Your task to perform on an android device: Open battery settings Image 0: 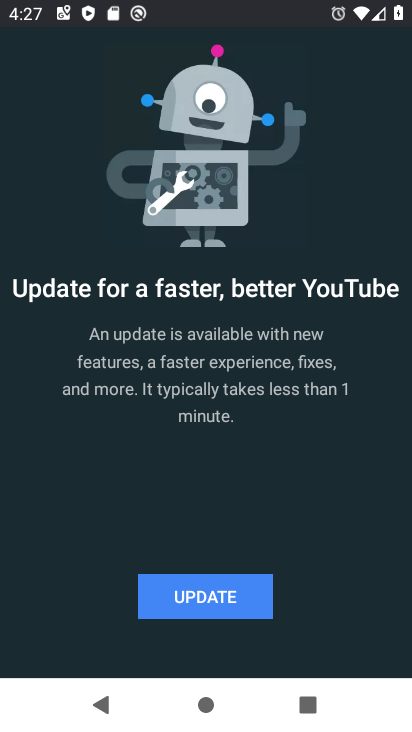
Step 0: press home button
Your task to perform on an android device: Open battery settings Image 1: 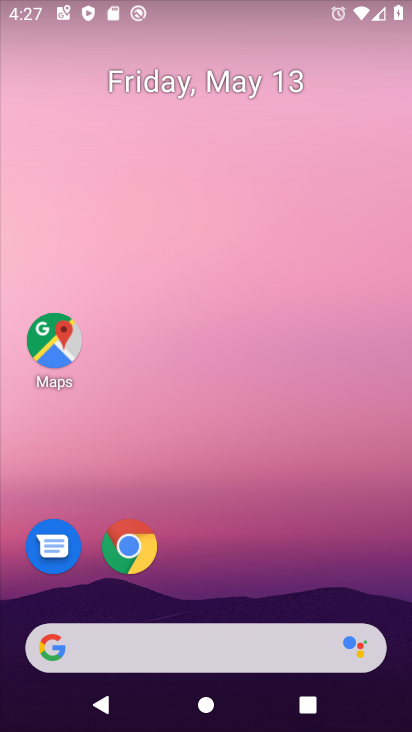
Step 1: drag from (215, 614) to (409, 58)
Your task to perform on an android device: Open battery settings Image 2: 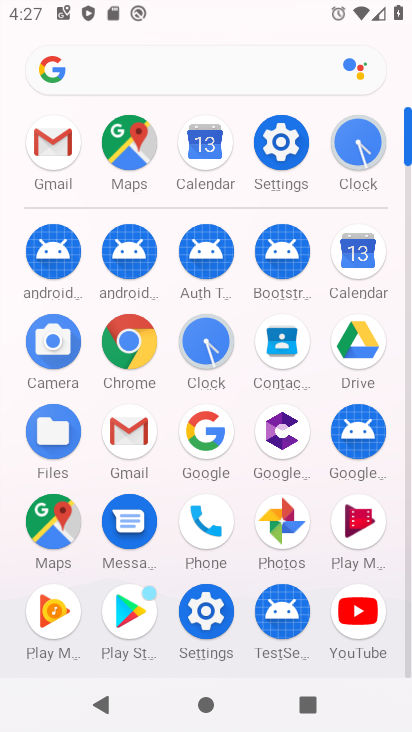
Step 2: click (290, 152)
Your task to perform on an android device: Open battery settings Image 3: 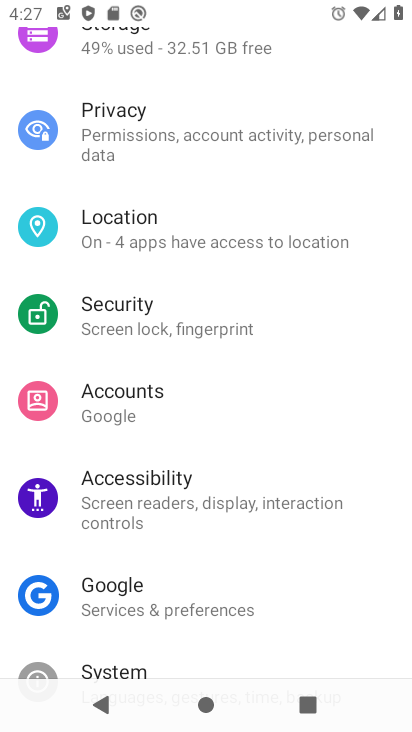
Step 3: drag from (214, 242) to (169, 563)
Your task to perform on an android device: Open battery settings Image 4: 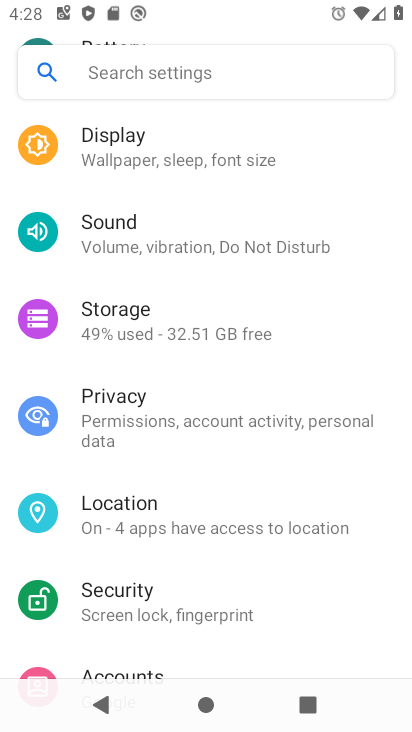
Step 4: drag from (190, 344) to (164, 649)
Your task to perform on an android device: Open battery settings Image 5: 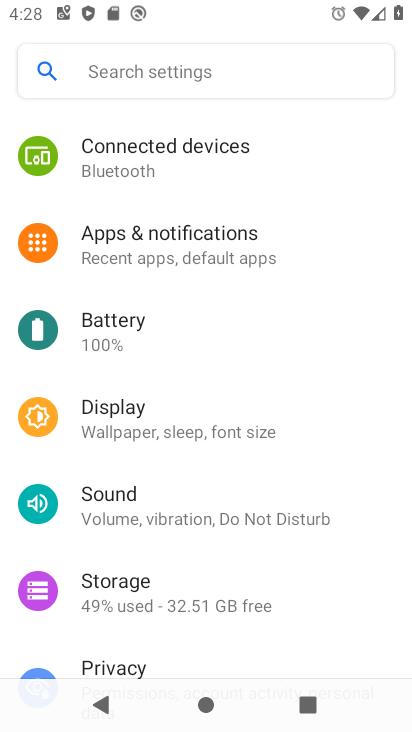
Step 5: click (153, 348)
Your task to perform on an android device: Open battery settings Image 6: 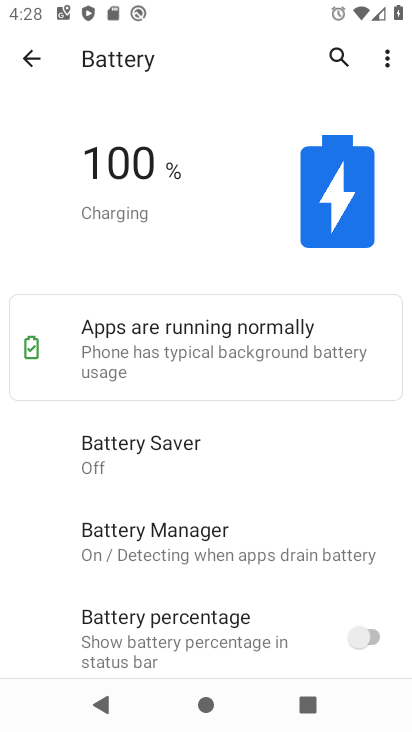
Step 6: task complete